Your task to perform on an android device: Go to network settings Image 0: 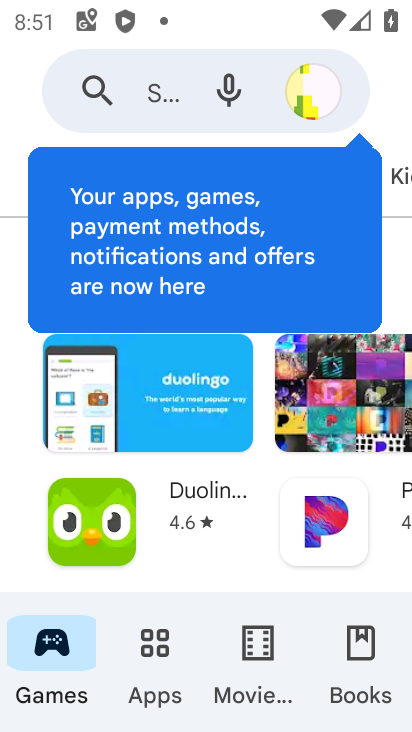
Step 0: press home button
Your task to perform on an android device: Go to network settings Image 1: 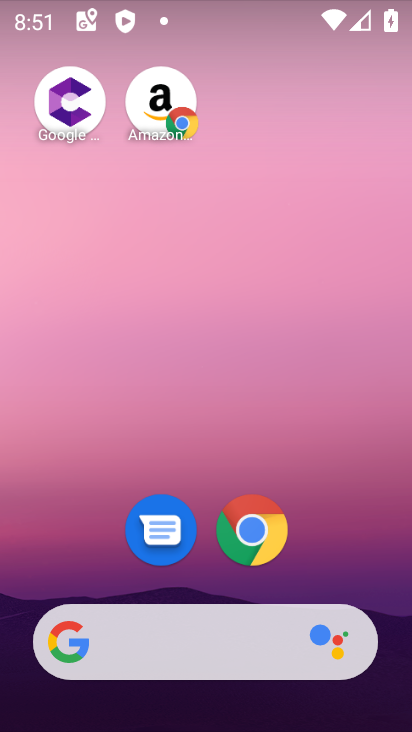
Step 1: drag from (31, 352) to (384, 401)
Your task to perform on an android device: Go to network settings Image 2: 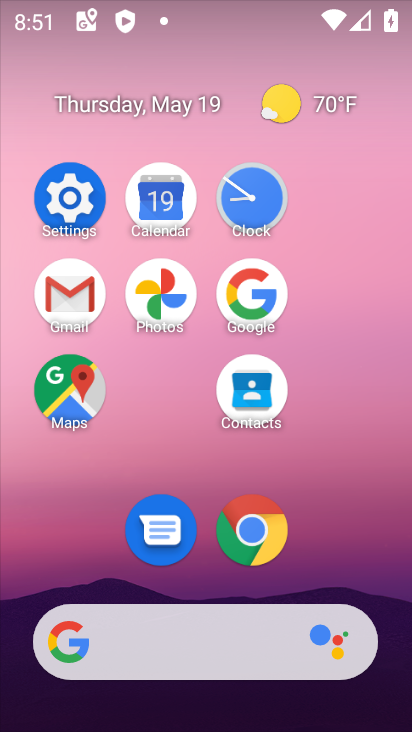
Step 2: click (62, 197)
Your task to perform on an android device: Go to network settings Image 3: 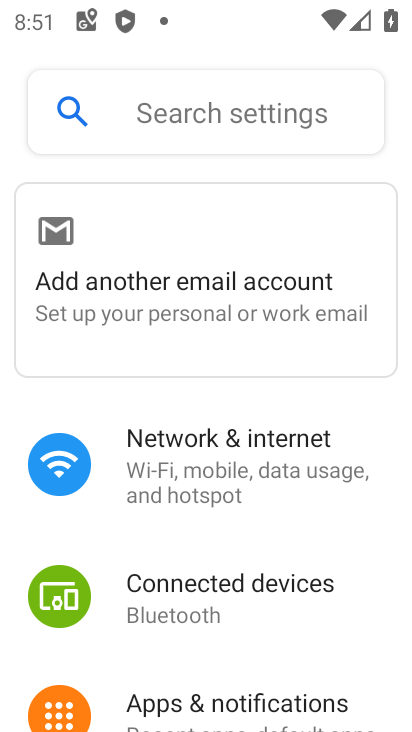
Step 3: click (256, 466)
Your task to perform on an android device: Go to network settings Image 4: 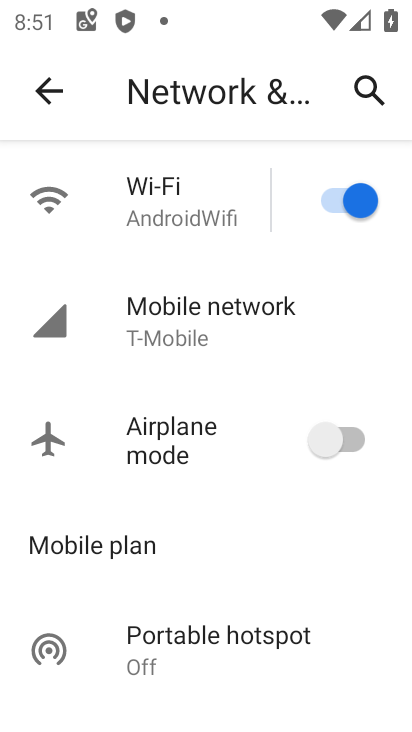
Step 4: task complete